Your task to perform on an android device: Go to notification settings Image 0: 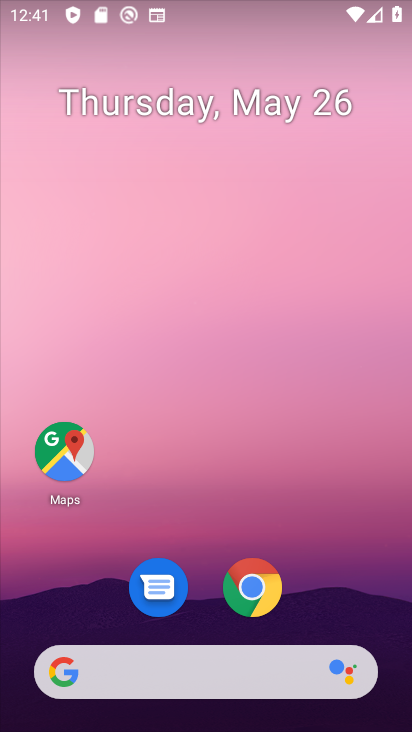
Step 0: drag from (375, 619) to (341, 151)
Your task to perform on an android device: Go to notification settings Image 1: 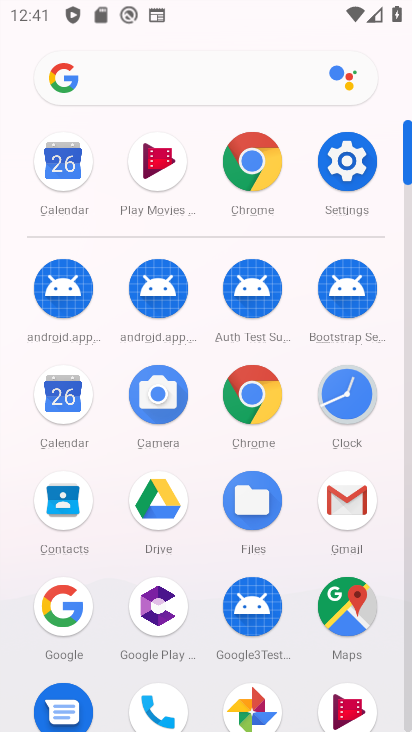
Step 1: click (350, 172)
Your task to perform on an android device: Go to notification settings Image 2: 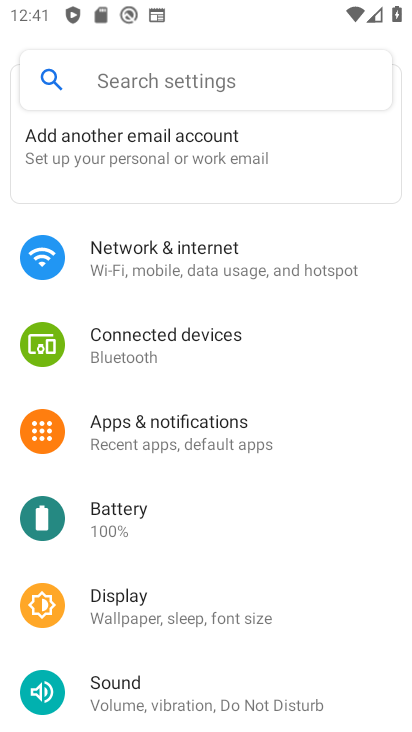
Step 2: drag from (361, 526) to (375, 370)
Your task to perform on an android device: Go to notification settings Image 3: 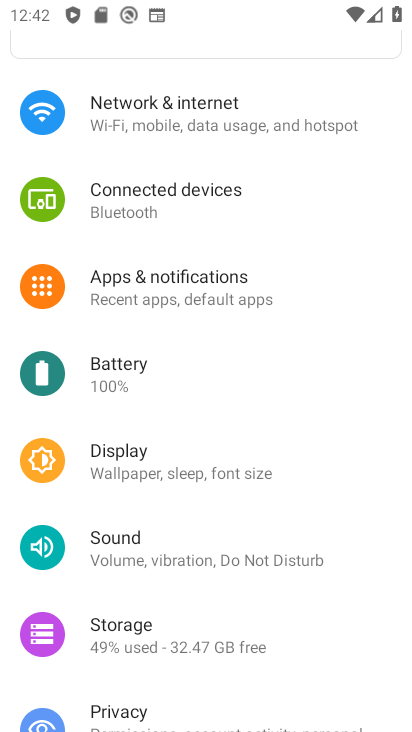
Step 3: drag from (351, 532) to (341, 354)
Your task to perform on an android device: Go to notification settings Image 4: 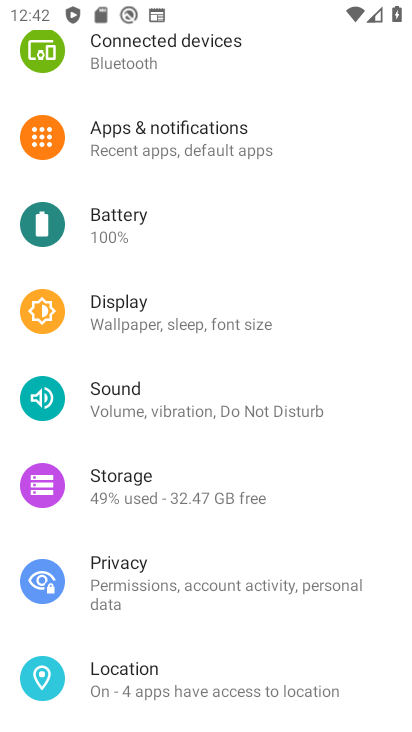
Step 4: drag from (359, 523) to (346, 393)
Your task to perform on an android device: Go to notification settings Image 5: 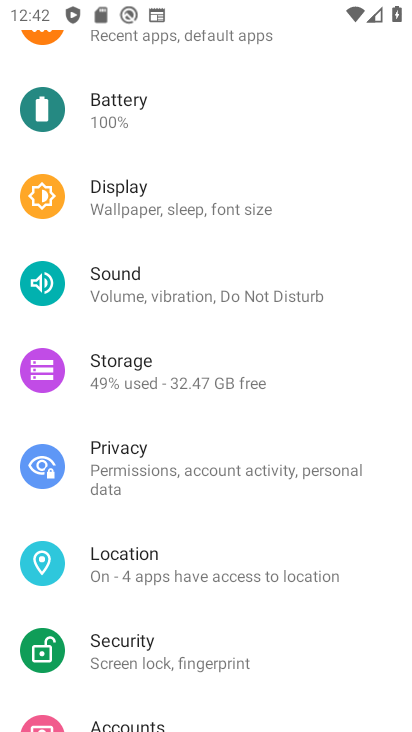
Step 5: drag from (344, 524) to (341, 362)
Your task to perform on an android device: Go to notification settings Image 6: 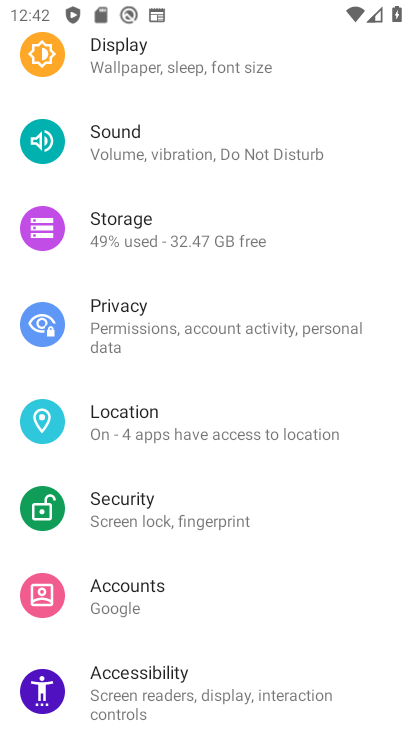
Step 6: drag from (365, 538) to (329, 370)
Your task to perform on an android device: Go to notification settings Image 7: 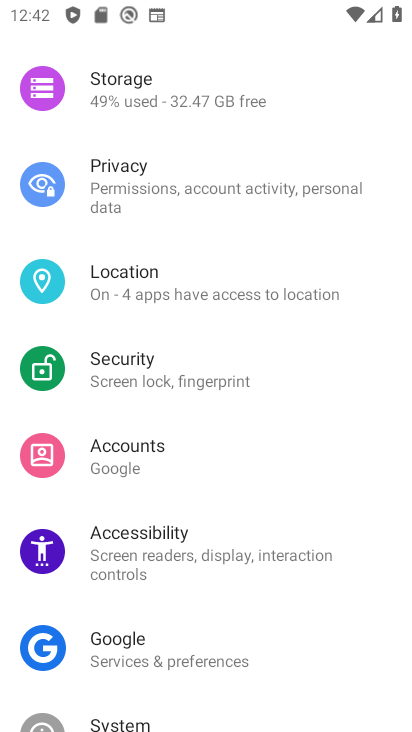
Step 7: drag from (315, 513) to (321, 396)
Your task to perform on an android device: Go to notification settings Image 8: 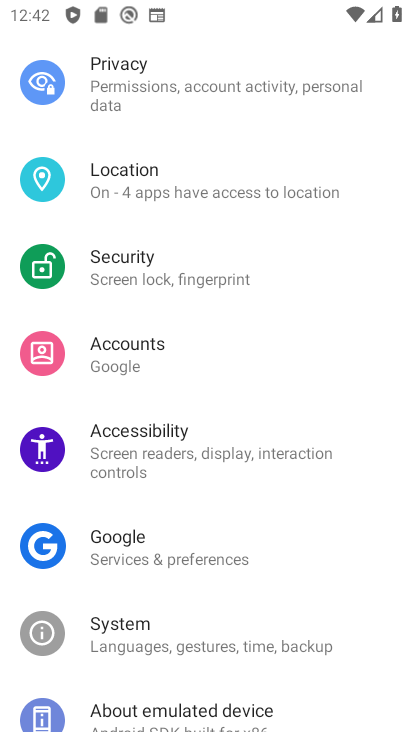
Step 8: drag from (363, 554) to (373, 383)
Your task to perform on an android device: Go to notification settings Image 9: 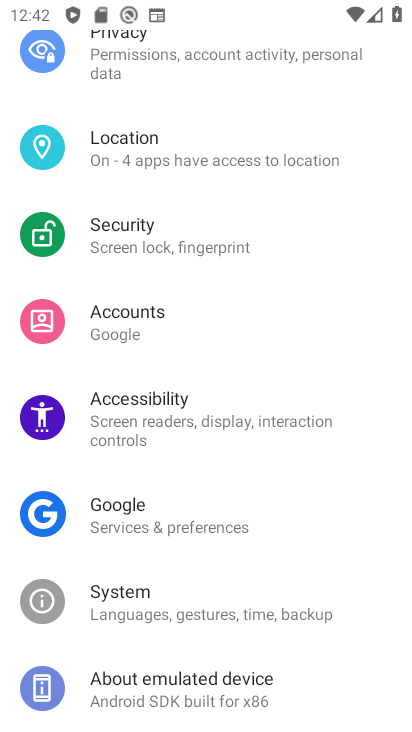
Step 9: drag from (365, 603) to (350, 383)
Your task to perform on an android device: Go to notification settings Image 10: 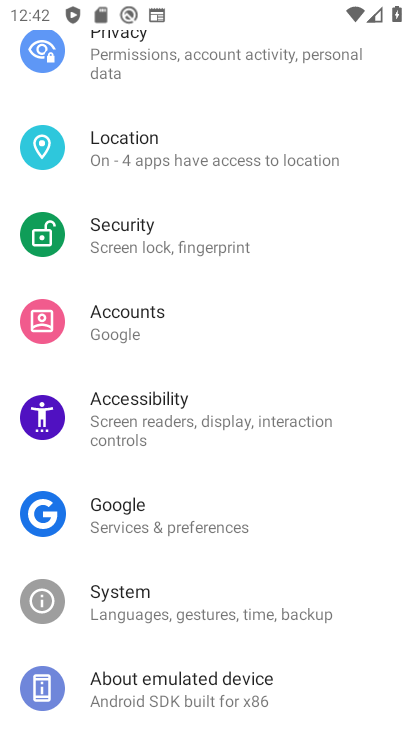
Step 10: drag from (341, 314) to (399, 558)
Your task to perform on an android device: Go to notification settings Image 11: 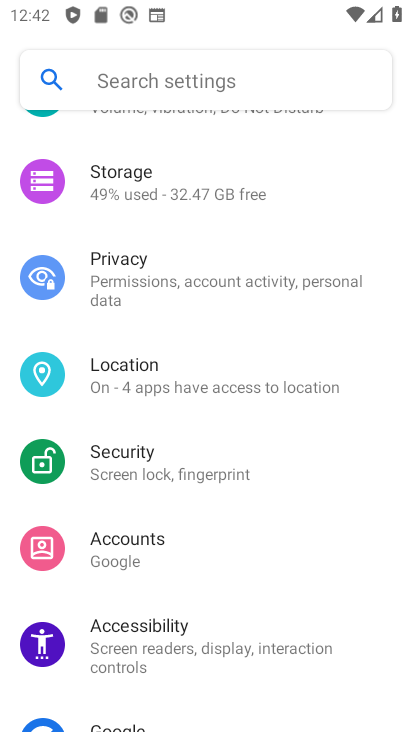
Step 11: drag from (378, 316) to (379, 463)
Your task to perform on an android device: Go to notification settings Image 12: 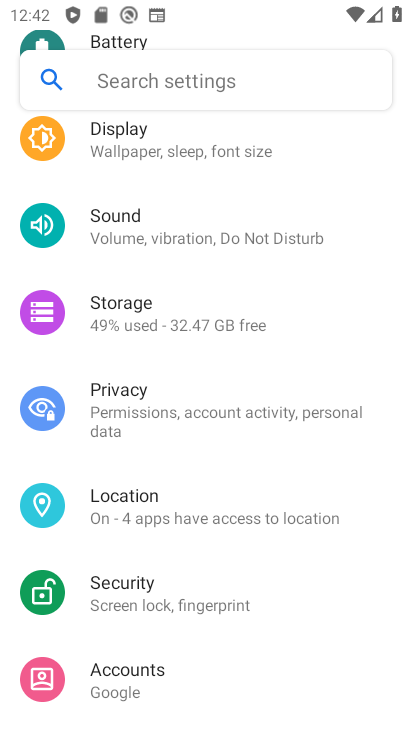
Step 12: drag from (336, 284) to (342, 424)
Your task to perform on an android device: Go to notification settings Image 13: 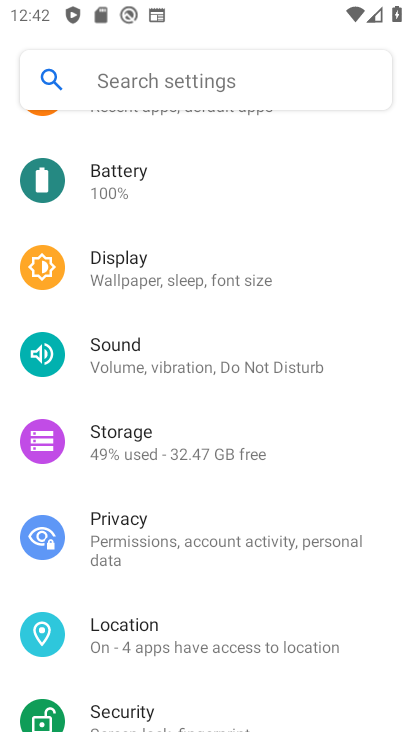
Step 13: drag from (349, 255) to (349, 403)
Your task to perform on an android device: Go to notification settings Image 14: 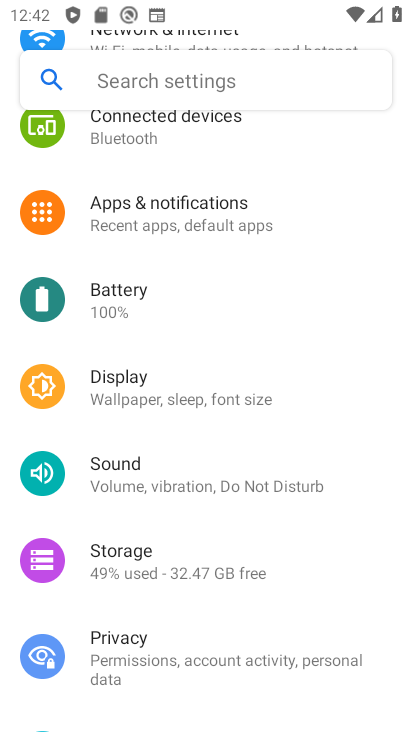
Step 14: drag from (342, 251) to (344, 363)
Your task to perform on an android device: Go to notification settings Image 15: 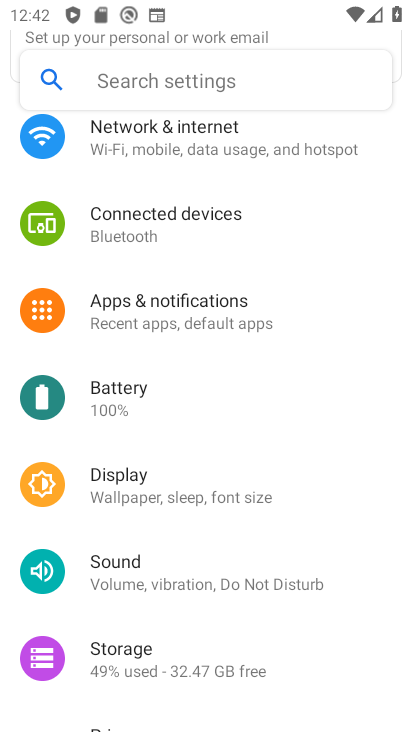
Step 15: click (267, 310)
Your task to perform on an android device: Go to notification settings Image 16: 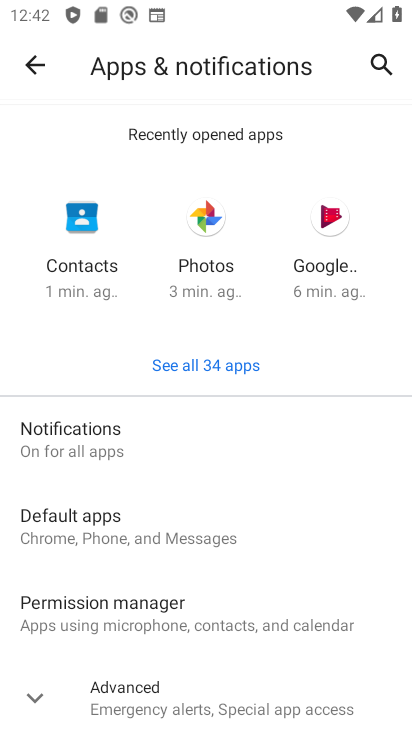
Step 16: click (123, 455)
Your task to perform on an android device: Go to notification settings Image 17: 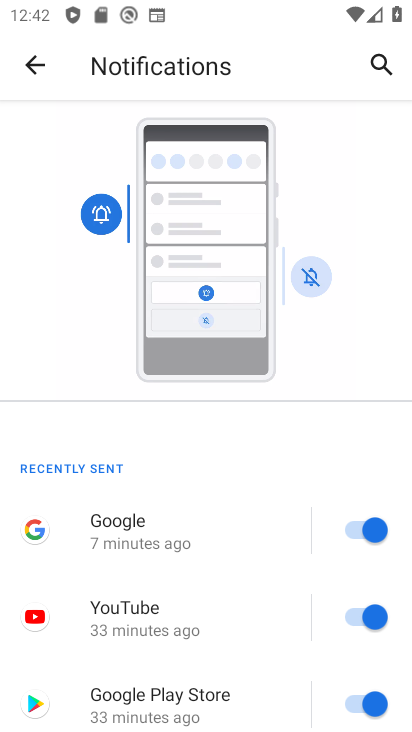
Step 17: task complete